Your task to perform on an android device: open app "Spotify" Image 0: 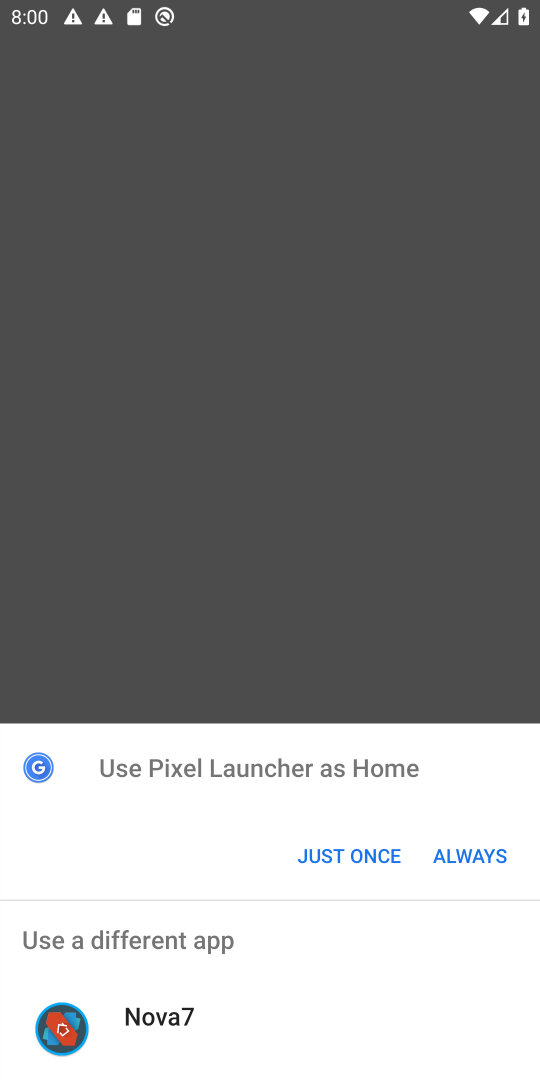
Step 0: press home button
Your task to perform on an android device: open app "Spotify" Image 1: 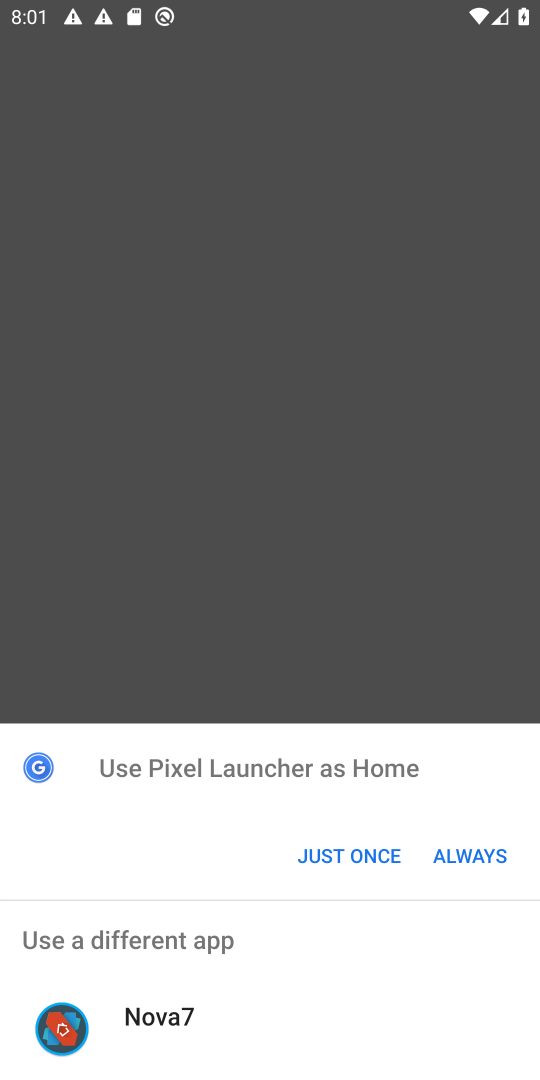
Step 1: press home button
Your task to perform on an android device: open app "Spotify" Image 2: 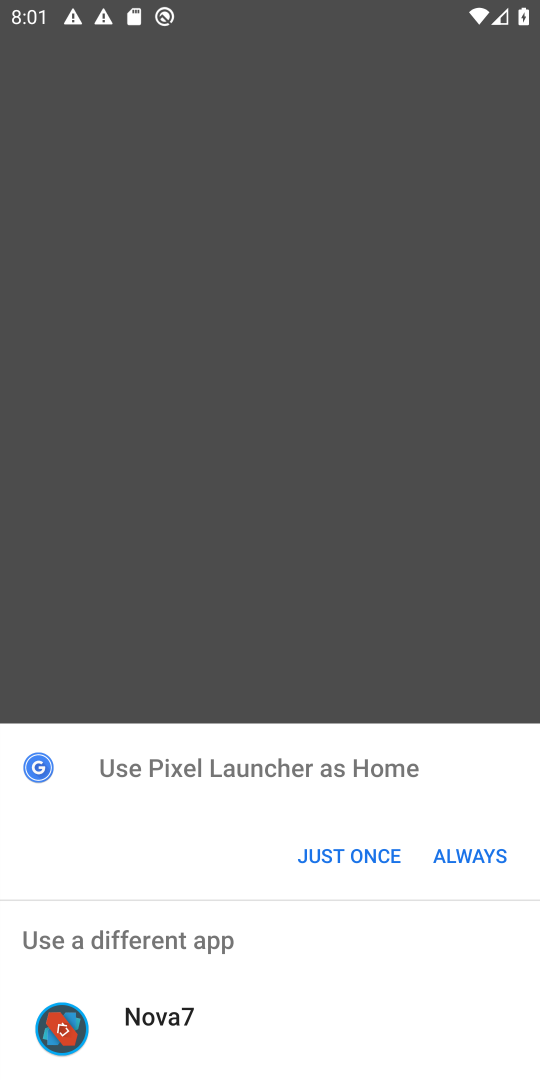
Step 2: click (477, 858)
Your task to perform on an android device: open app "Spotify" Image 3: 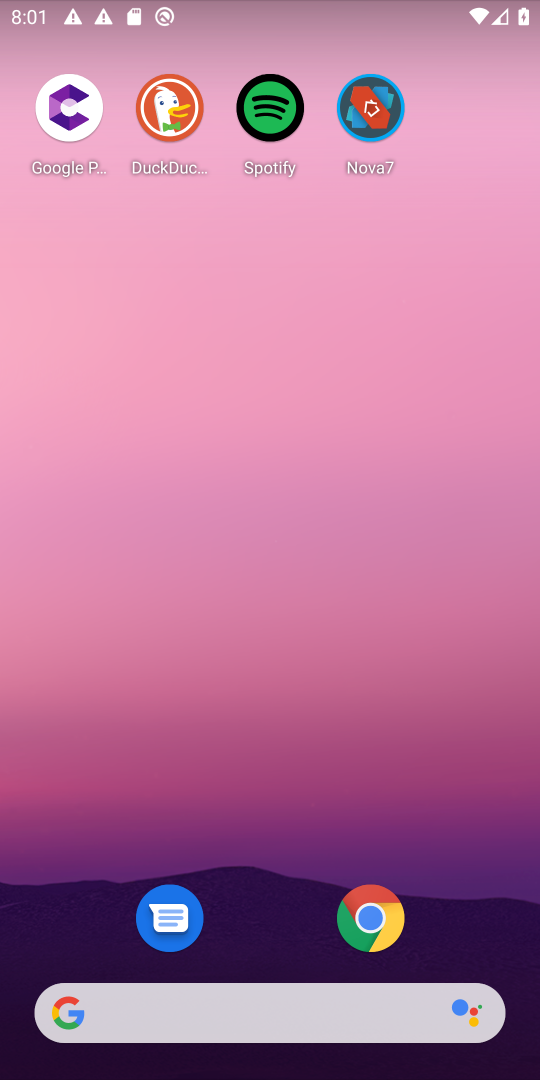
Step 3: press home button
Your task to perform on an android device: open app "Spotify" Image 4: 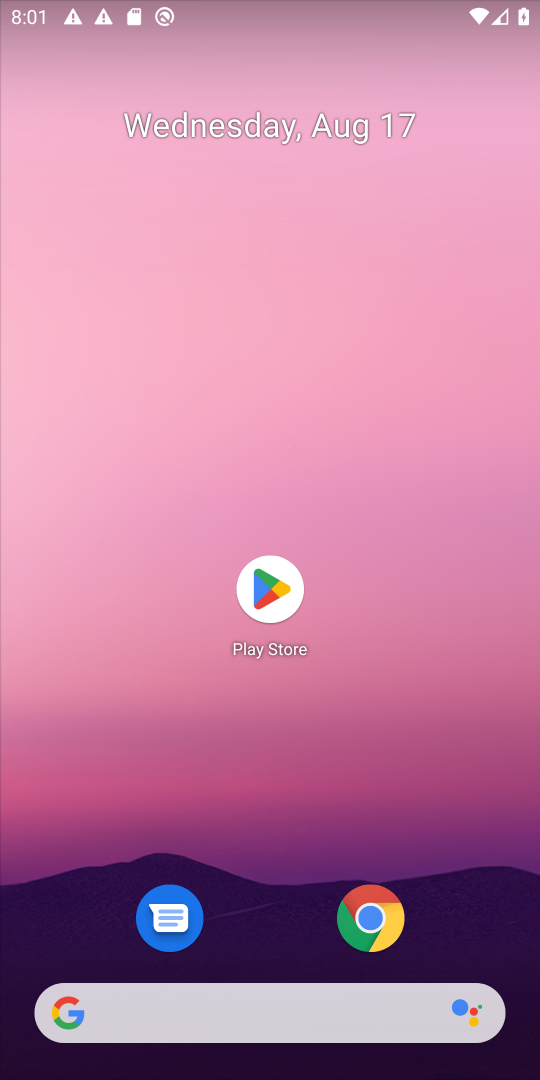
Step 4: click (265, 599)
Your task to perform on an android device: open app "Spotify" Image 5: 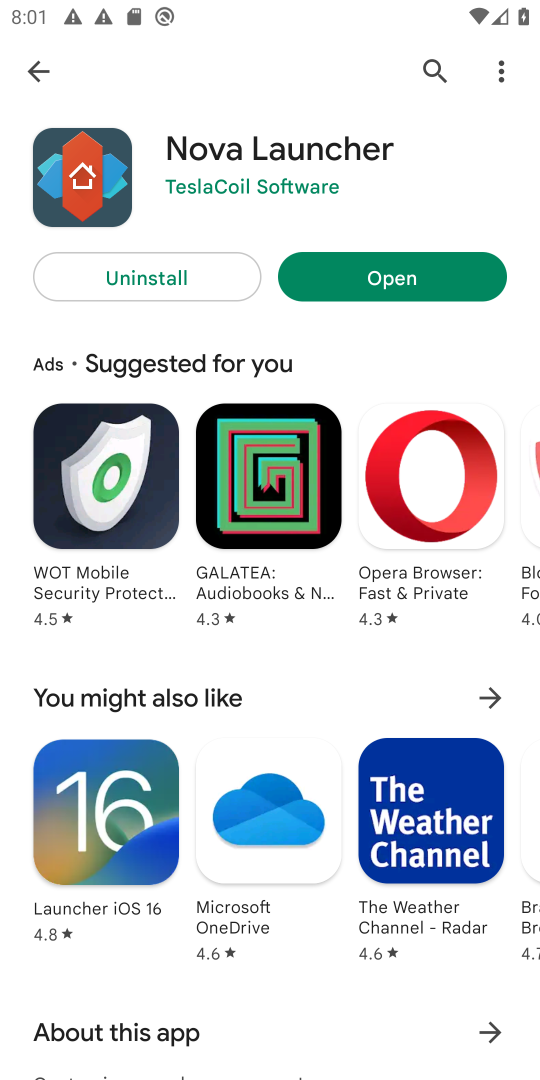
Step 5: click (426, 63)
Your task to perform on an android device: open app "Spotify" Image 6: 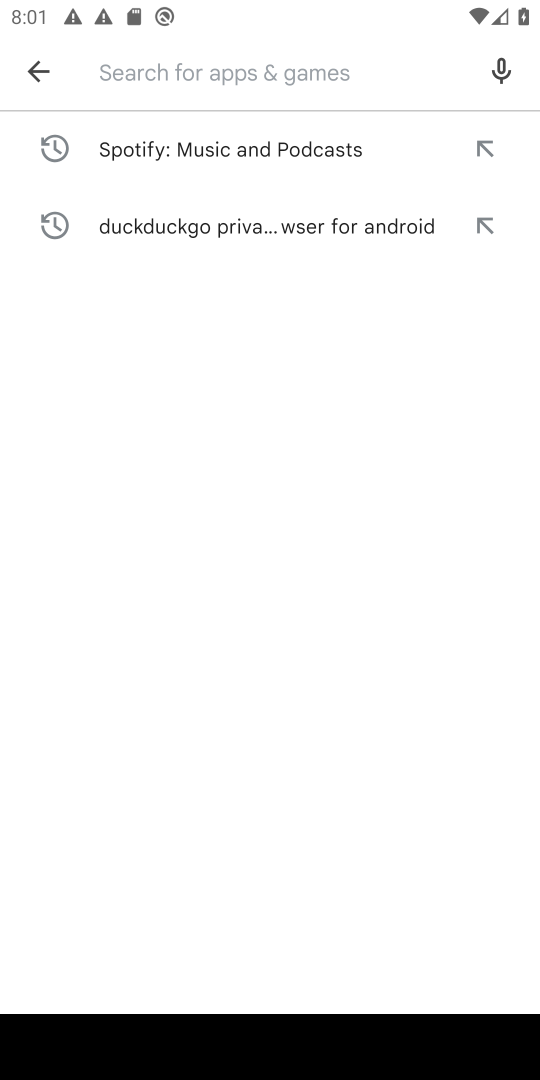
Step 6: type "Spotify"
Your task to perform on an android device: open app "Spotify" Image 7: 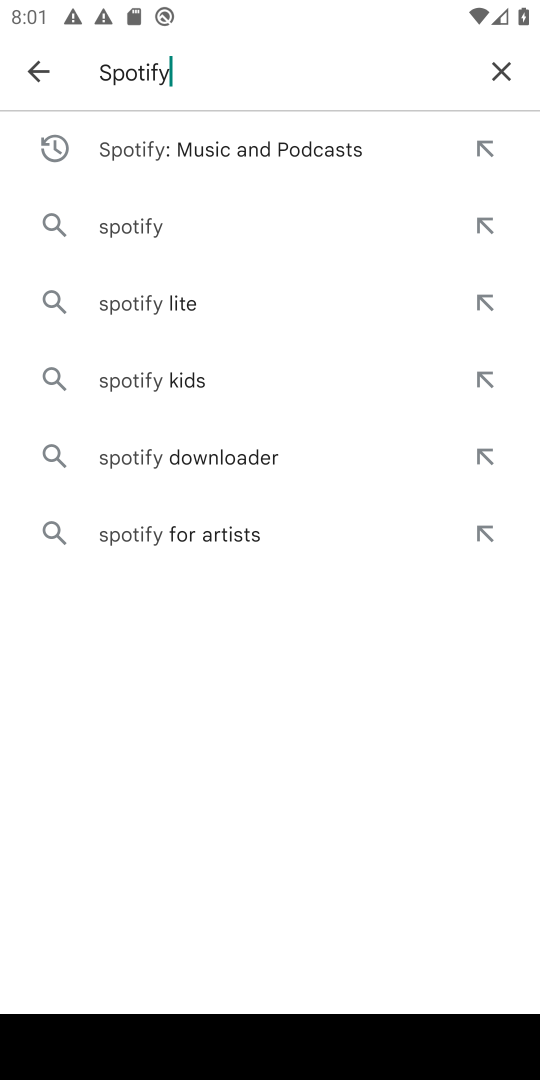
Step 7: click (142, 220)
Your task to perform on an android device: open app "Spotify" Image 8: 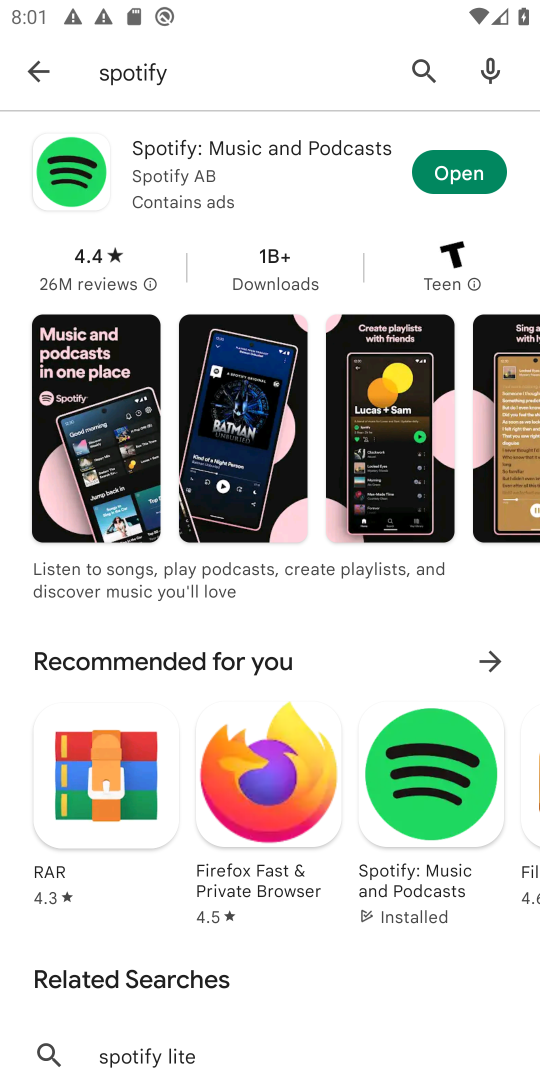
Step 8: click (440, 167)
Your task to perform on an android device: open app "Spotify" Image 9: 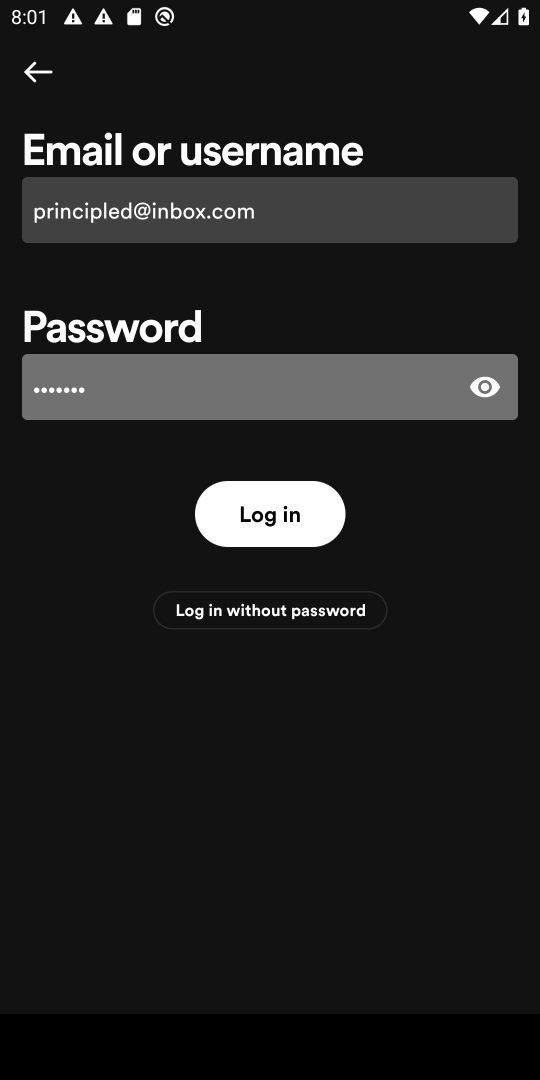
Step 9: task complete